Your task to perform on an android device: Go to Reddit.com Image 0: 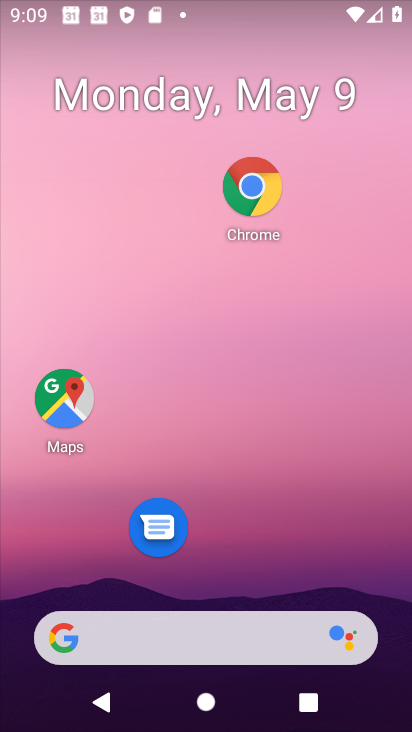
Step 0: click (248, 179)
Your task to perform on an android device: Go to Reddit.com Image 1: 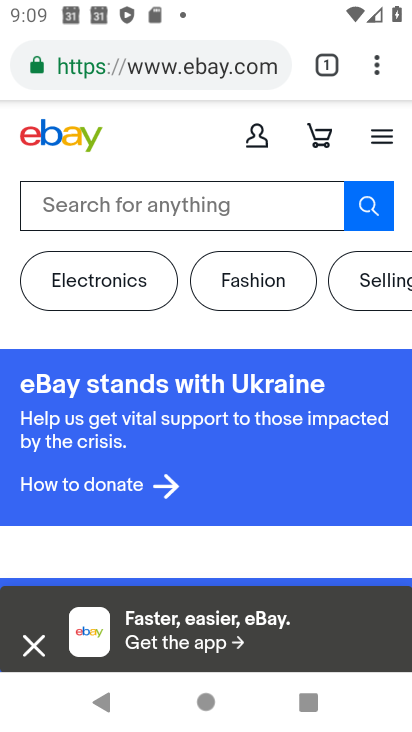
Step 1: click (329, 61)
Your task to perform on an android device: Go to Reddit.com Image 2: 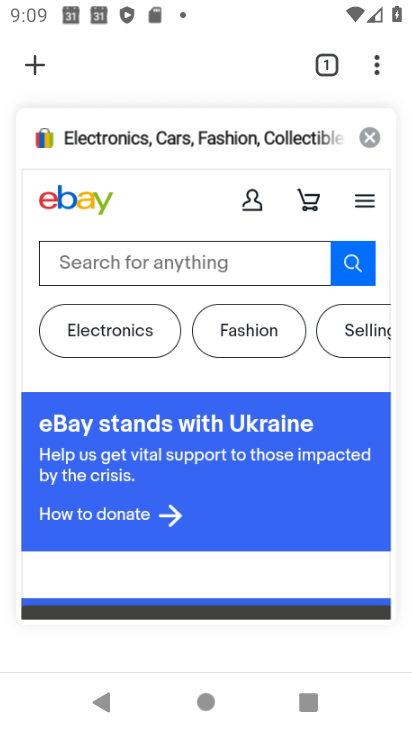
Step 2: click (366, 130)
Your task to perform on an android device: Go to Reddit.com Image 3: 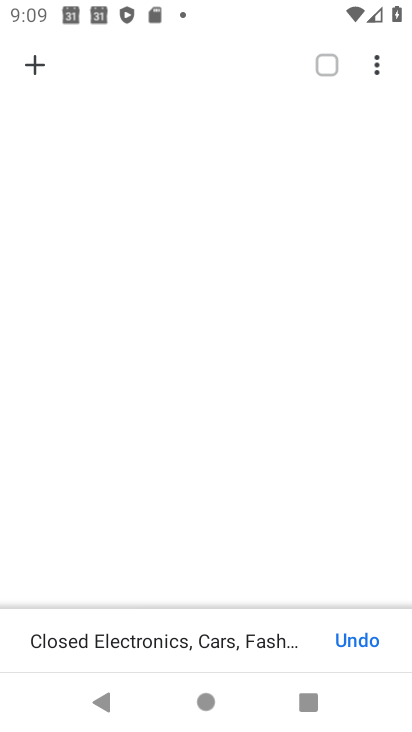
Step 3: click (34, 65)
Your task to perform on an android device: Go to Reddit.com Image 4: 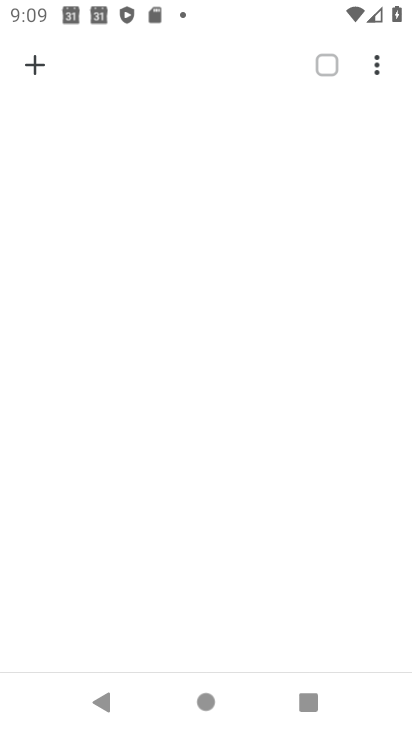
Step 4: click (43, 68)
Your task to perform on an android device: Go to Reddit.com Image 5: 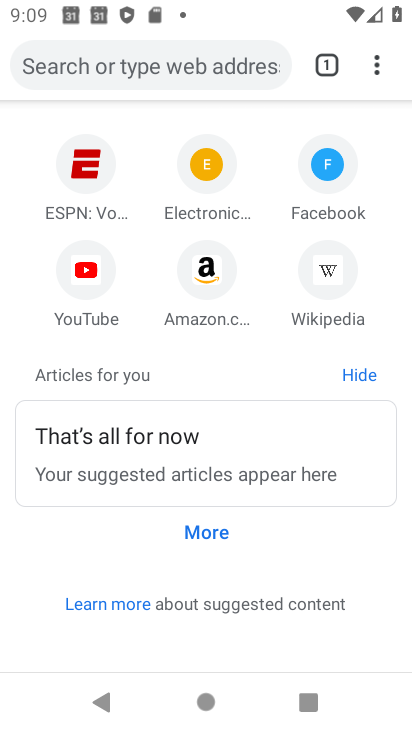
Step 5: click (124, 58)
Your task to perform on an android device: Go to Reddit.com Image 6: 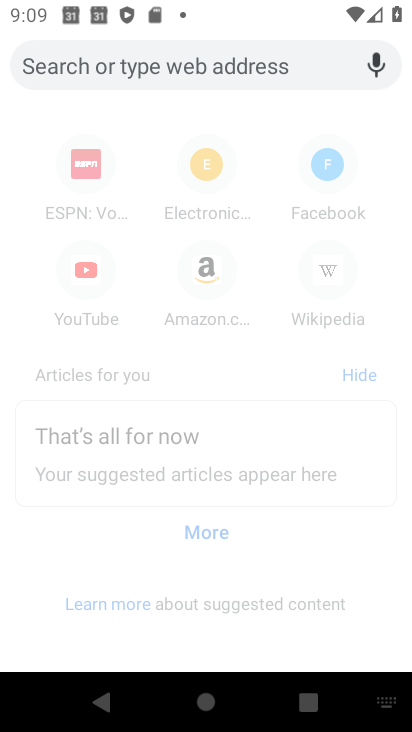
Step 6: type "reddit.com"
Your task to perform on an android device: Go to Reddit.com Image 7: 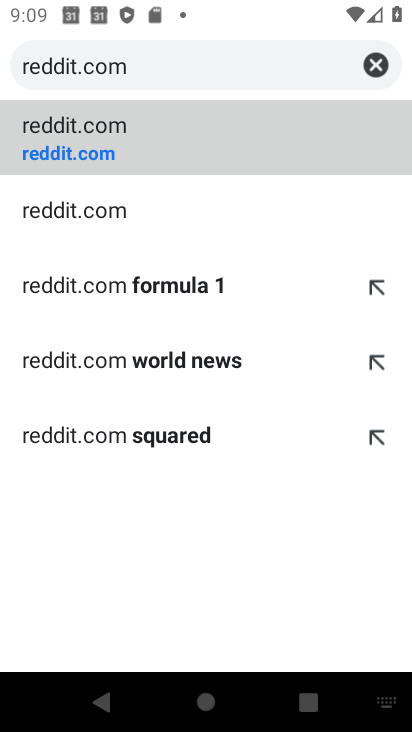
Step 7: click (118, 148)
Your task to perform on an android device: Go to Reddit.com Image 8: 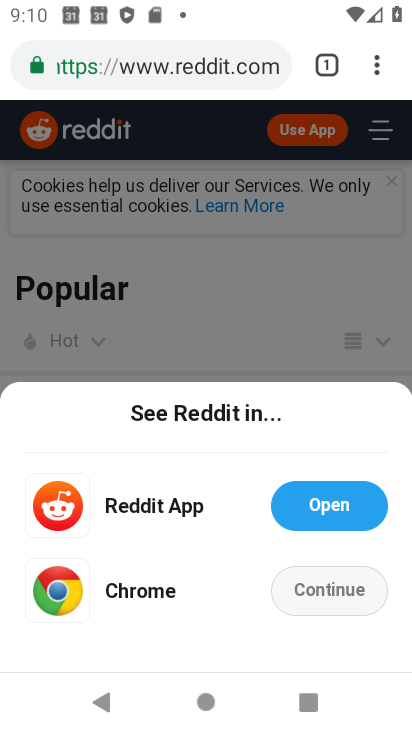
Step 8: click (327, 589)
Your task to perform on an android device: Go to Reddit.com Image 9: 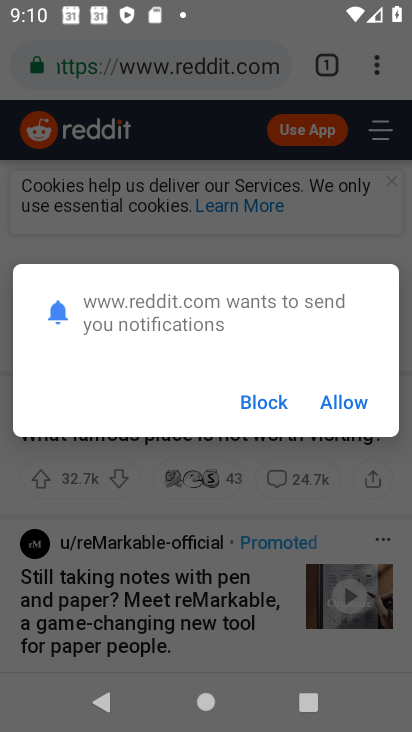
Step 9: click (349, 405)
Your task to perform on an android device: Go to Reddit.com Image 10: 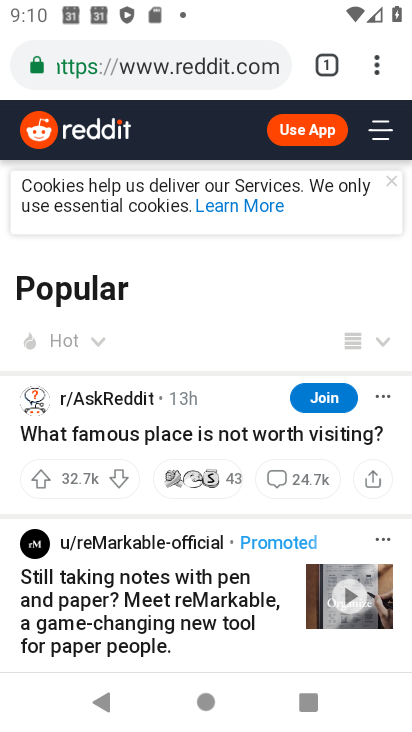
Step 10: task complete